Your task to perform on an android device: turn on javascript in the chrome app Image 0: 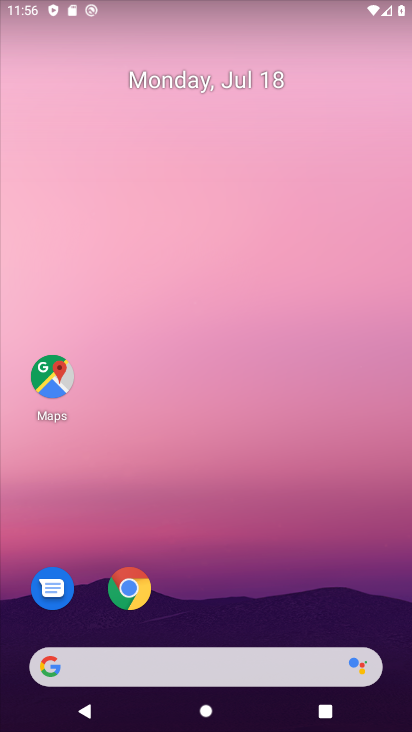
Step 0: drag from (243, 587) to (315, 185)
Your task to perform on an android device: turn on javascript in the chrome app Image 1: 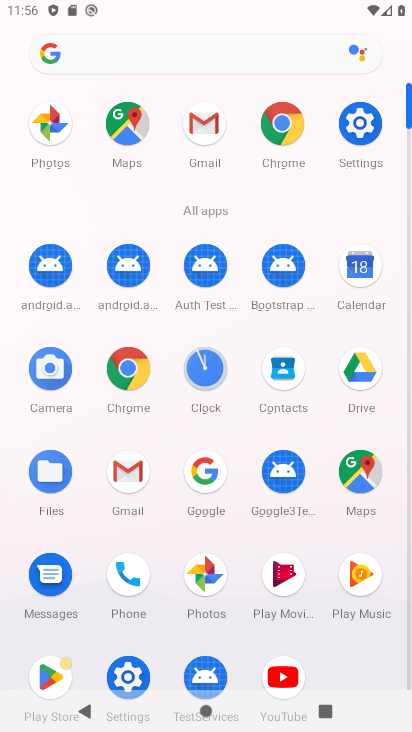
Step 1: click (122, 370)
Your task to perform on an android device: turn on javascript in the chrome app Image 2: 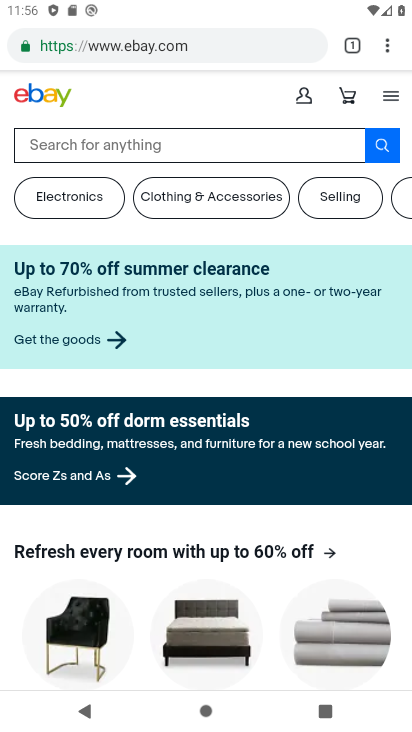
Step 2: drag from (390, 34) to (264, 502)
Your task to perform on an android device: turn on javascript in the chrome app Image 3: 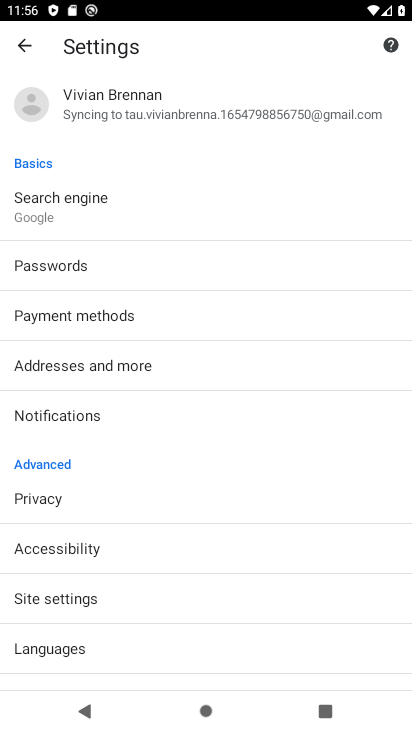
Step 3: click (91, 608)
Your task to perform on an android device: turn on javascript in the chrome app Image 4: 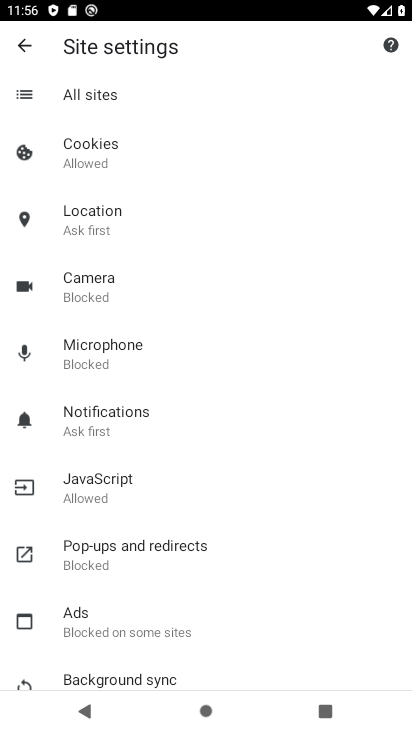
Step 4: click (204, 497)
Your task to perform on an android device: turn on javascript in the chrome app Image 5: 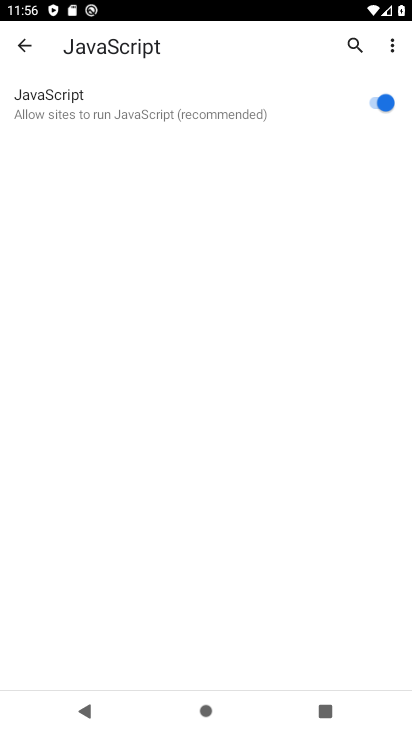
Step 5: task complete